Your task to perform on an android device: Open Wikipedia Image 0: 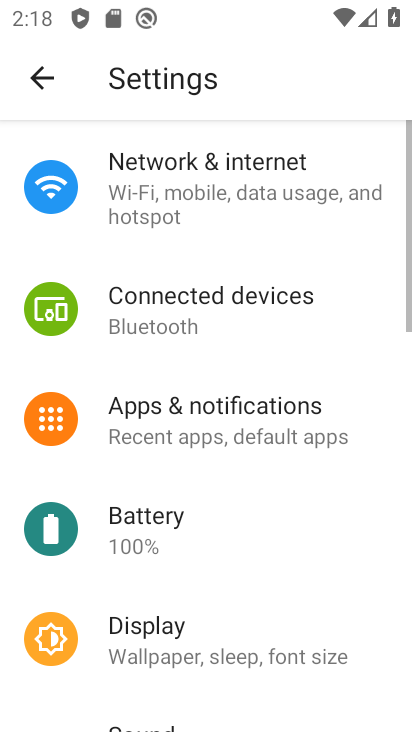
Step 0: press home button
Your task to perform on an android device: Open Wikipedia Image 1: 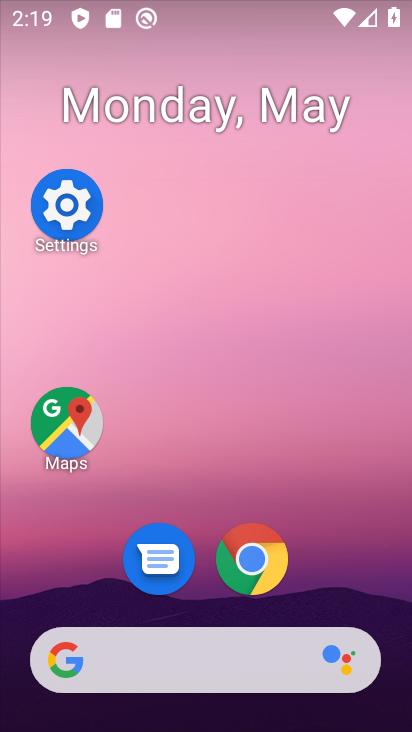
Step 1: click (260, 556)
Your task to perform on an android device: Open Wikipedia Image 2: 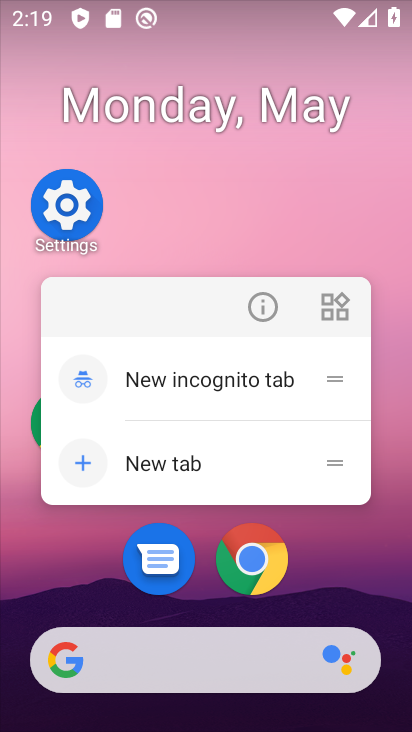
Step 2: click (233, 532)
Your task to perform on an android device: Open Wikipedia Image 3: 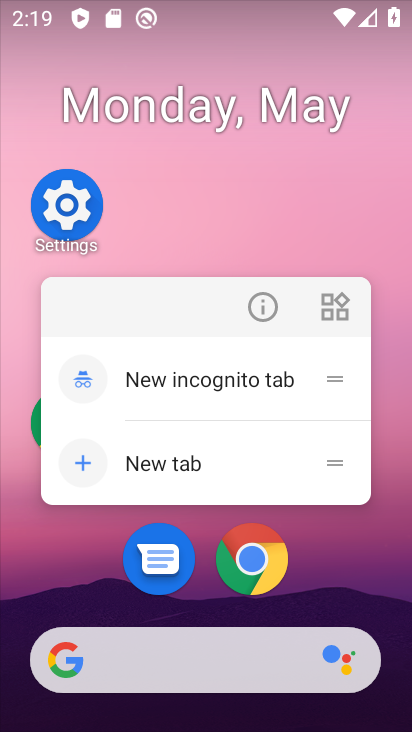
Step 3: click (245, 545)
Your task to perform on an android device: Open Wikipedia Image 4: 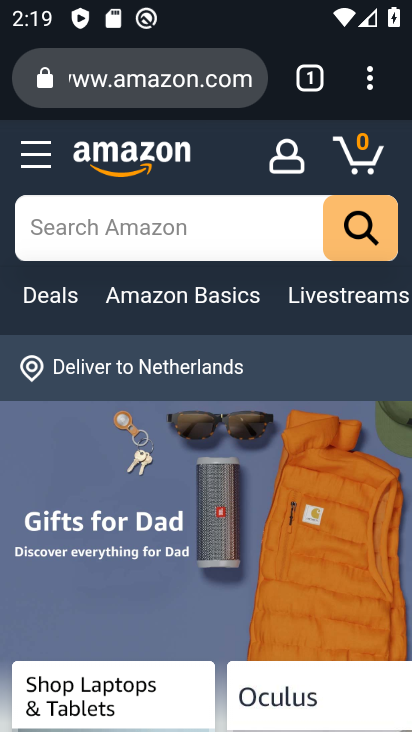
Step 4: click (324, 76)
Your task to perform on an android device: Open Wikipedia Image 5: 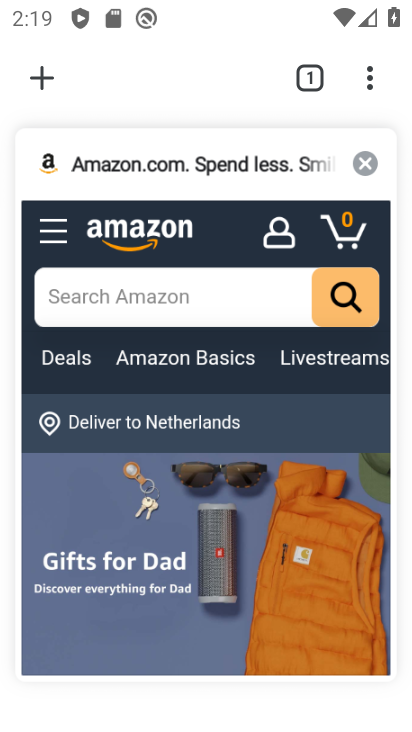
Step 5: click (59, 77)
Your task to perform on an android device: Open Wikipedia Image 6: 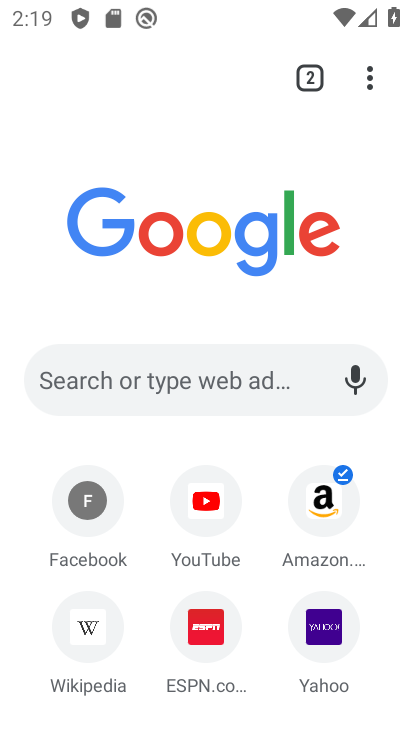
Step 6: click (88, 629)
Your task to perform on an android device: Open Wikipedia Image 7: 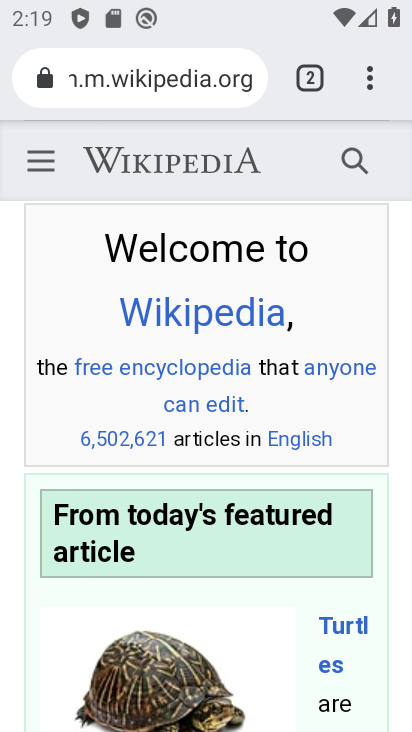
Step 7: task complete